Your task to perform on an android device: Open Google Chrome and open the bookmarks view Image 0: 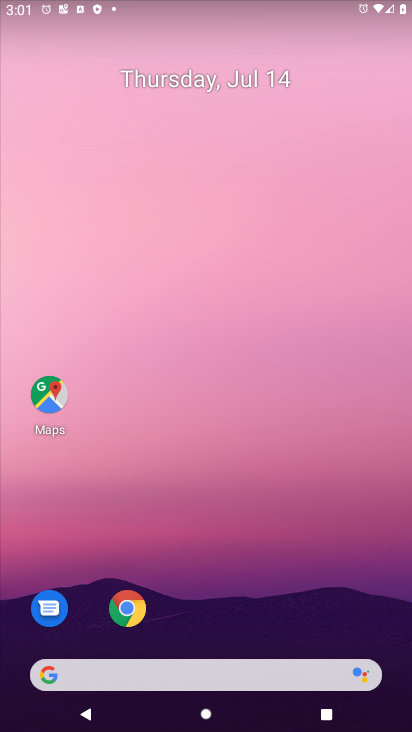
Step 0: click (126, 605)
Your task to perform on an android device: Open Google Chrome and open the bookmarks view Image 1: 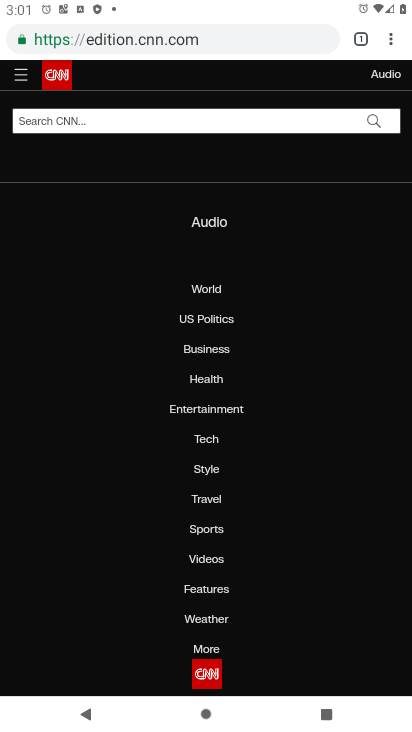
Step 1: click (391, 42)
Your task to perform on an android device: Open Google Chrome and open the bookmarks view Image 2: 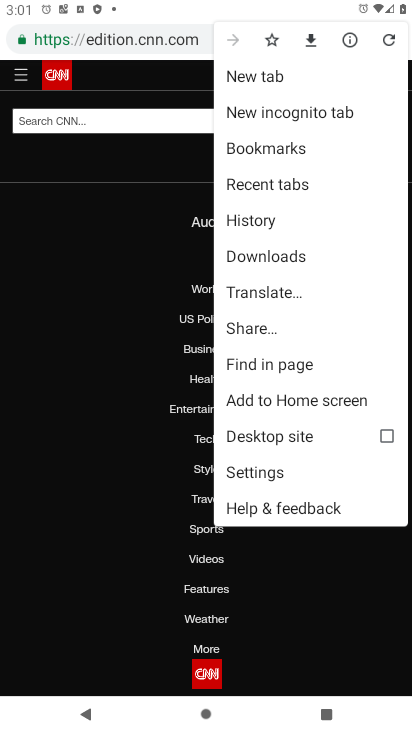
Step 2: click (266, 147)
Your task to perform on an android device: Open Google Chrome and open the bookmarks view Image 3: 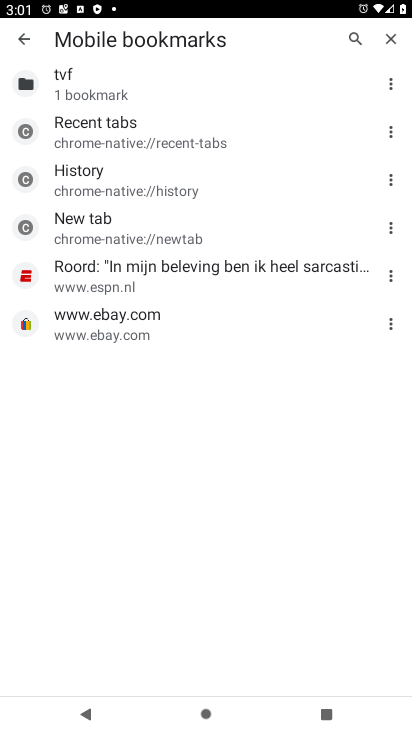
Step 3: task complete